Your task to perform on an android device: Toggle the flashlight Image 0: 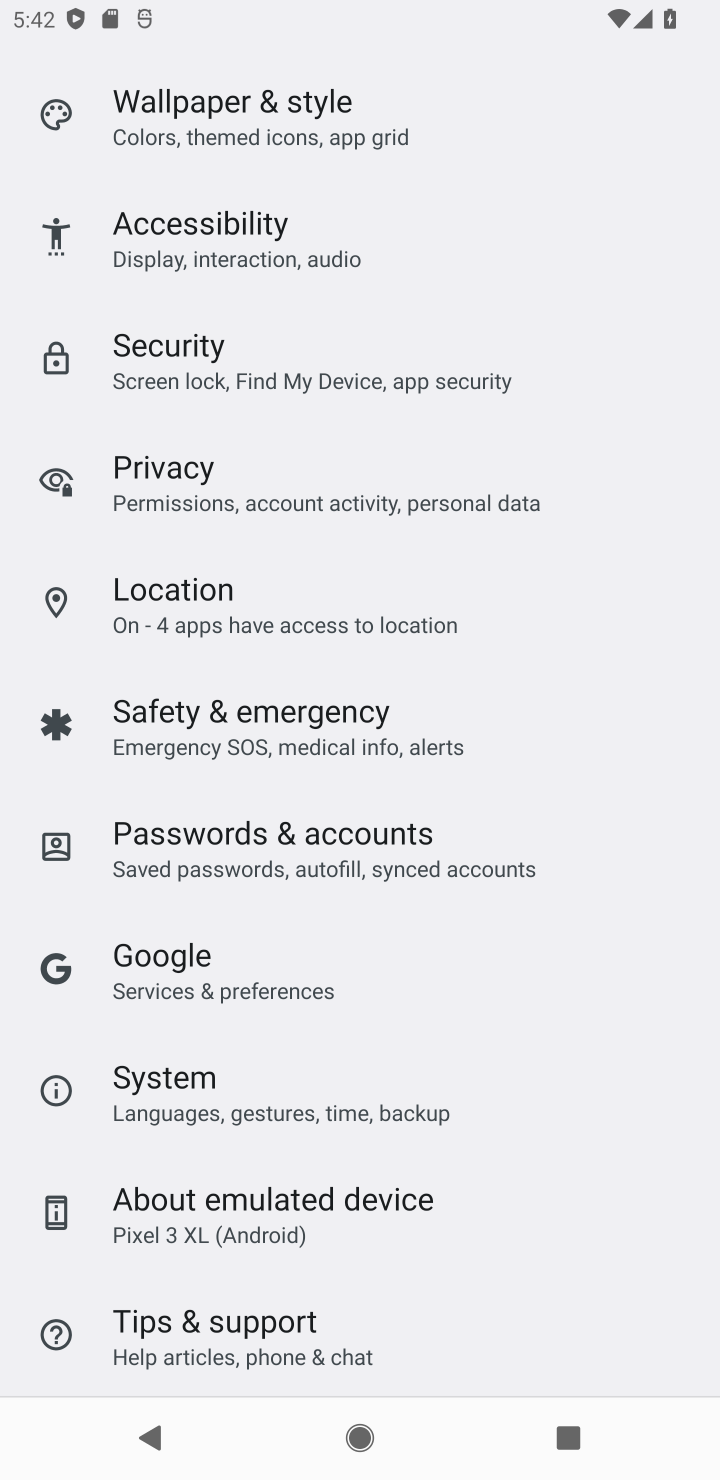
Step 0: click (190, 470)
Your task to perform on an android device: Toggle the flashlight Image 1: 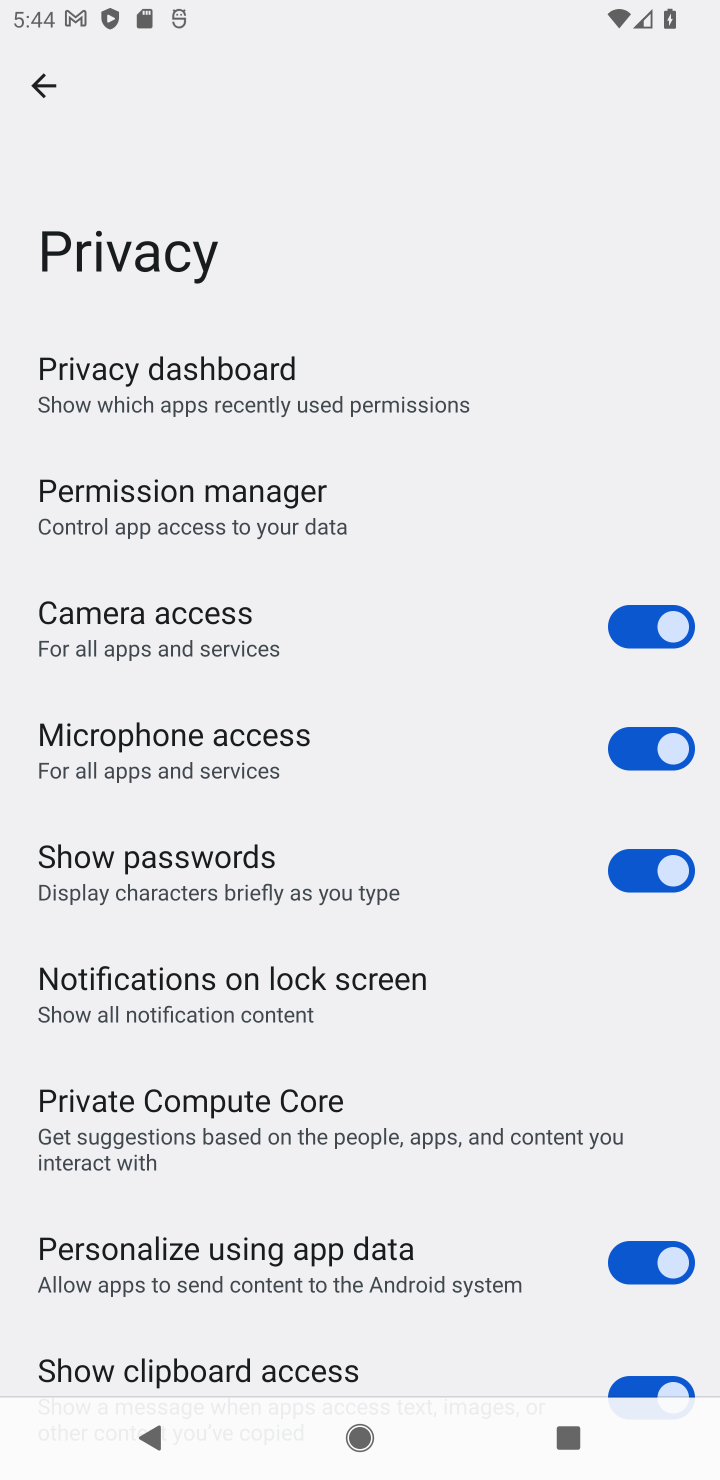
Step 1: task complete